Your task to perform on an android device: Go to internet settings Image 0: 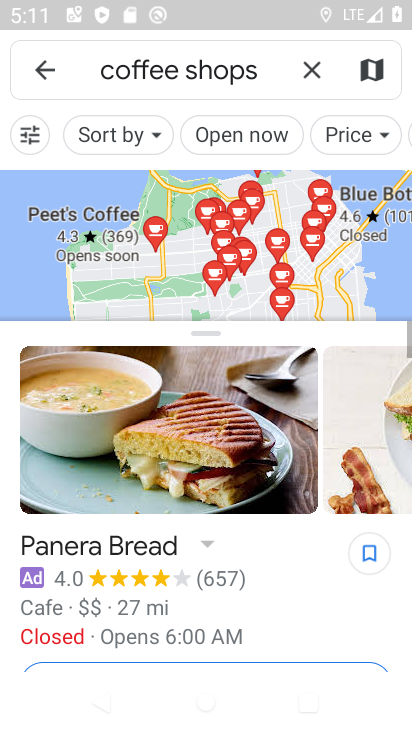
Step 0: press home button
Your task to perform on an android device: Go to internet settings Image 1: 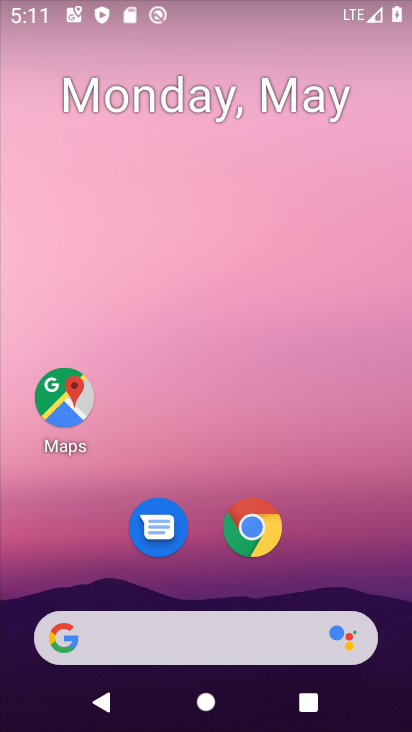
Step 1: drag from (393, 664) to (346, 201)
Your task to perform on an android device: Go to internet settings Image 2: 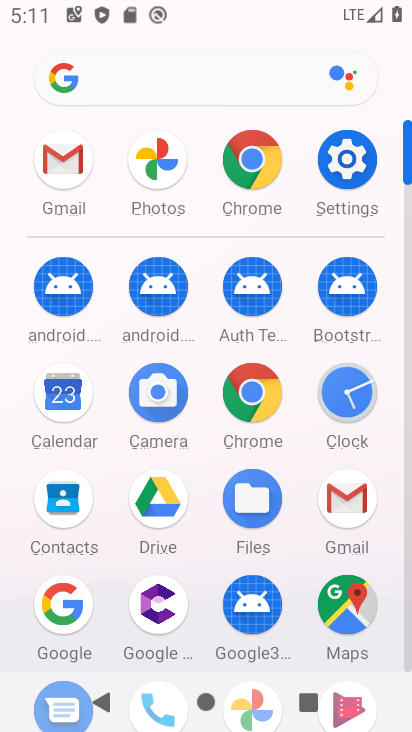
Step 2: click (361, 157)
Your task to perform on an android device: Go to internet settings Image 3: 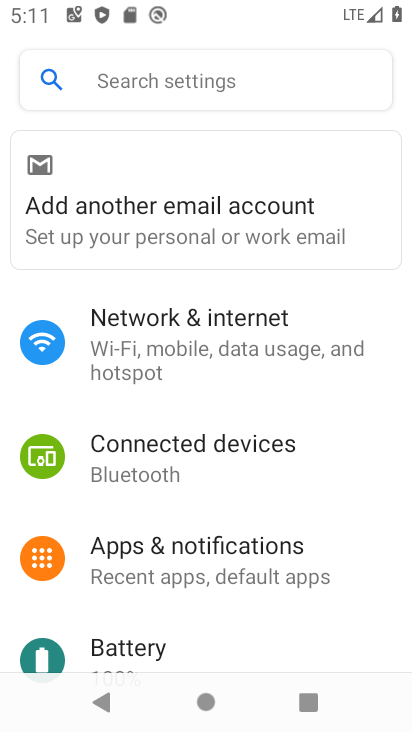
Step 3: click (160, 359)
Your task to perform on an android device: Go to internet settings Image 4: 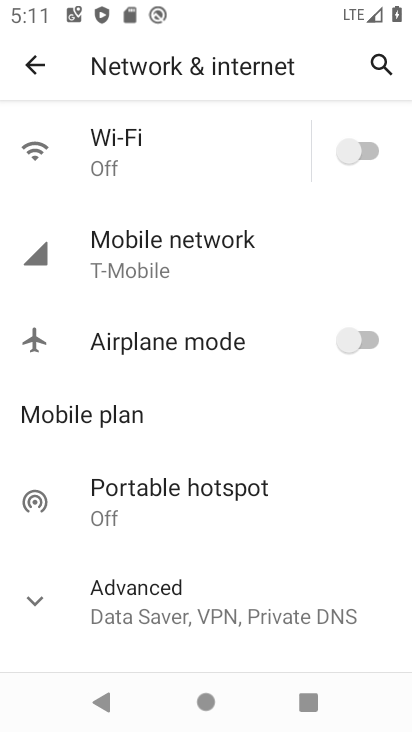
Step 4: click (109, 254)
Your task to perform on an android device: Go to internet settings Image 5: 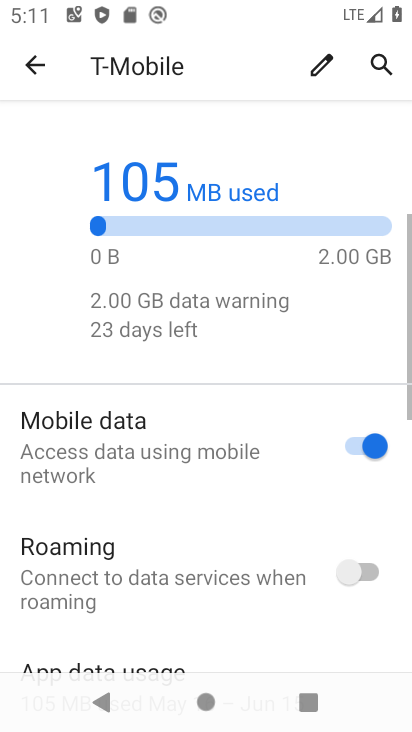
Step 5: task complete